Your task to perform on an android device: turn on location history Image 0: 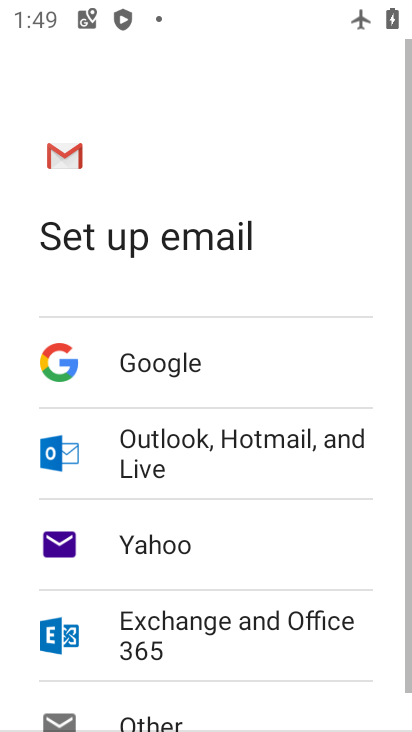
Step 0: press home button
Your task to perform on an android device: turn on location history Image 1: 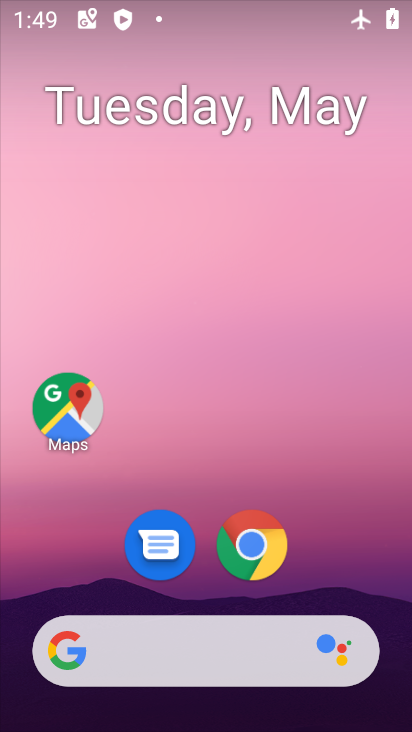
Step 1: click (71, 409)
Your task to perform on an android device: turn on location history Image 2: 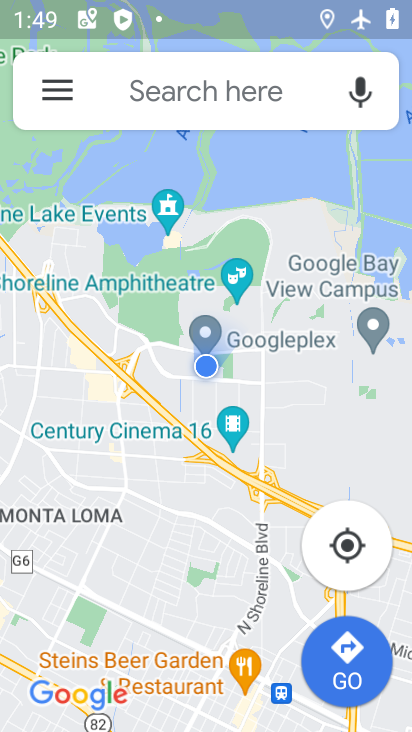
Step 2: click (58, 85)
Your task to perform on an android device: turn on location history Image 3: 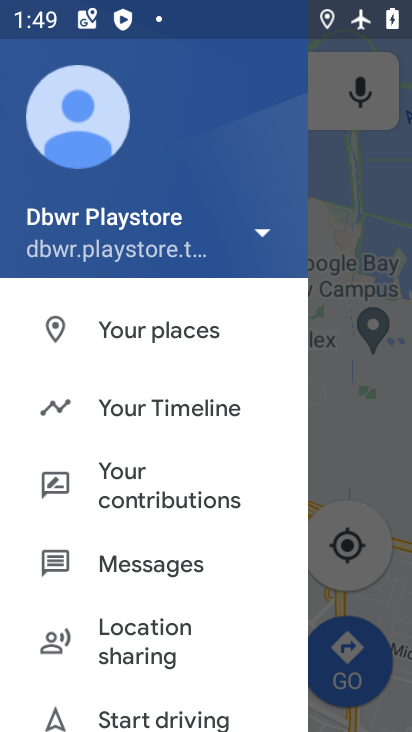
Step 3: drag from (229, 650) to (242, 237)
Your task to perform on an android device: turn on location history Image 4: 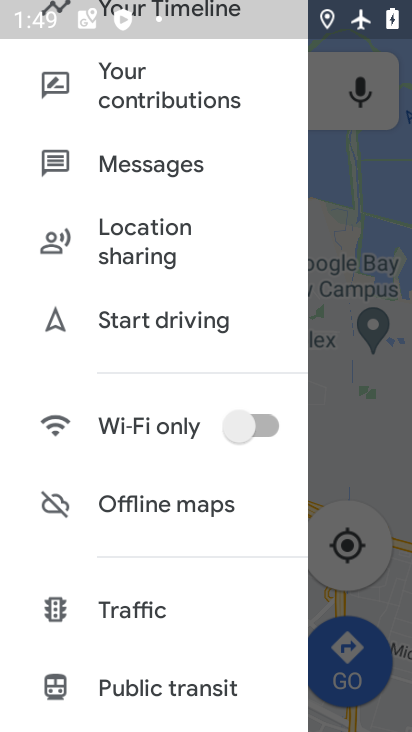
Step 4: drag from (211, 664) to (177, 213)
Your task to perform on an android device: turn on location history Image 5: 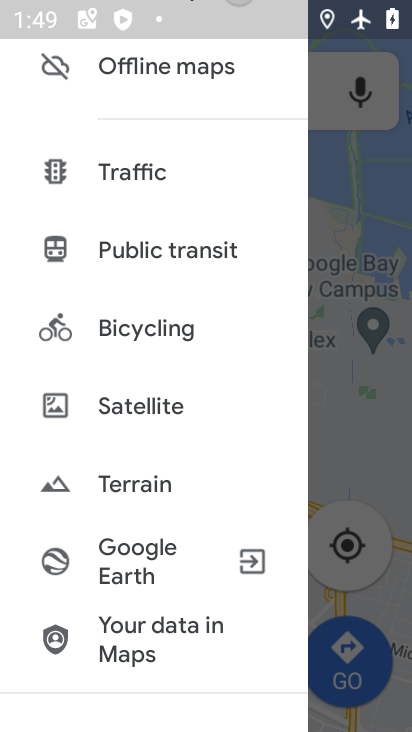
Step 5: drag from (210, 633) to (170, 220)
Your task to perform on an android device: turn on location history Image 6: 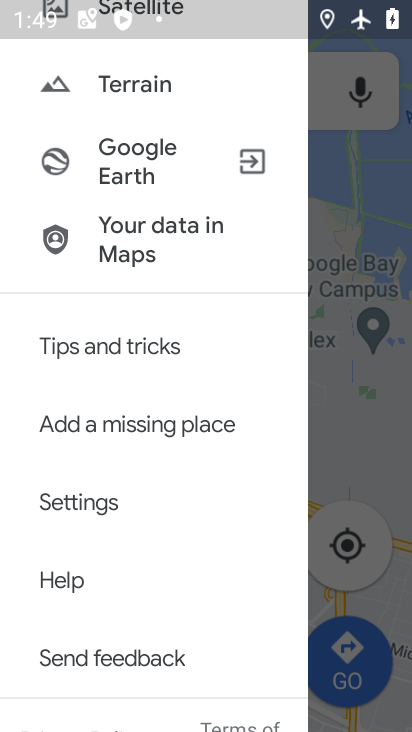
Step 6: click (85, 503)
Your task to perform on an android device: turn on location history Image 7: 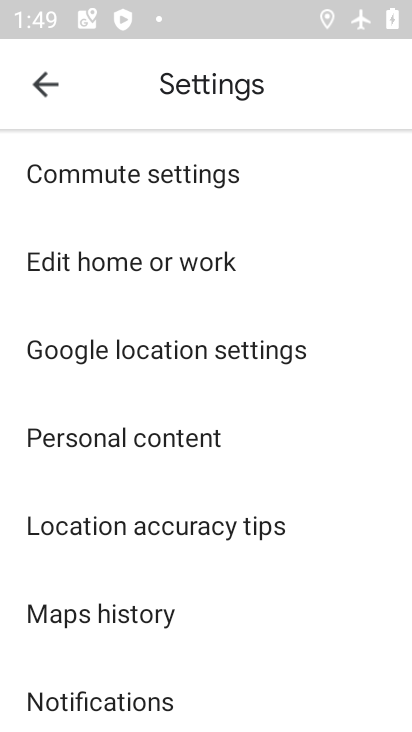
Step 7: click (117, 423)
Your task to perform on an android device: turn on location history Image 8: 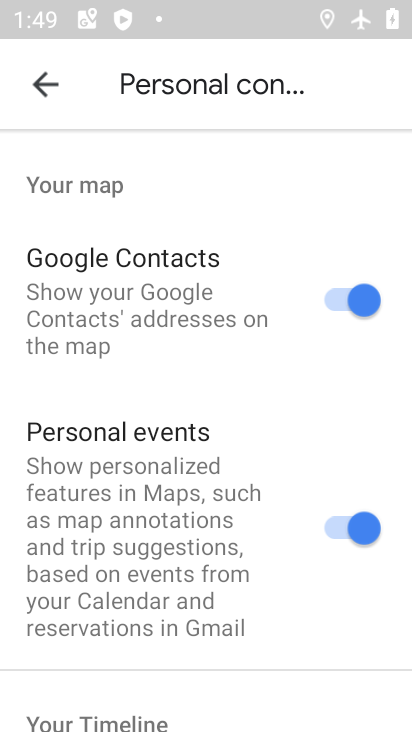
Step 8: drag from (318, 614) to (275, 132)
Your task to perform on an android device: turn on location history Image 9: 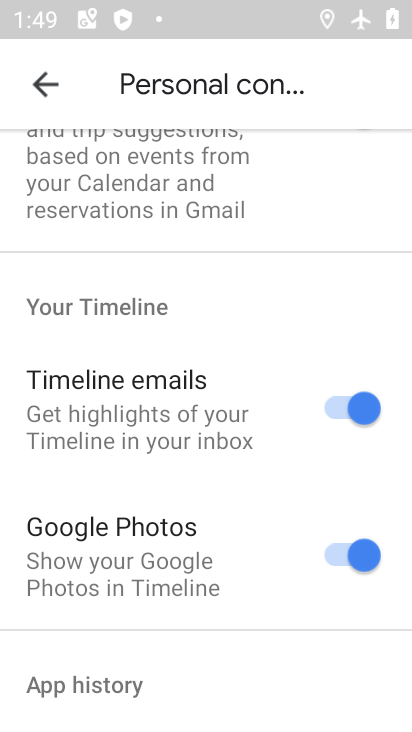
Step 9: drag from (258, 622) to (232, 268)
Your task to perform on an android device: turn on location history Image 10: 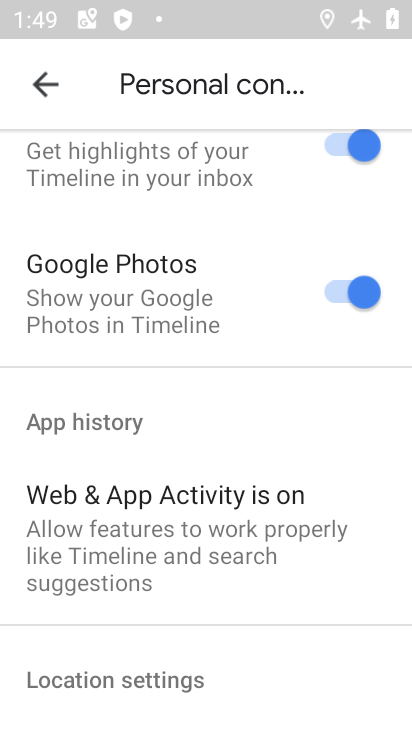
Step 10: drag from (252, 653) to (218, 231)
Your task to perform on an android device: turn on location history Image 11: 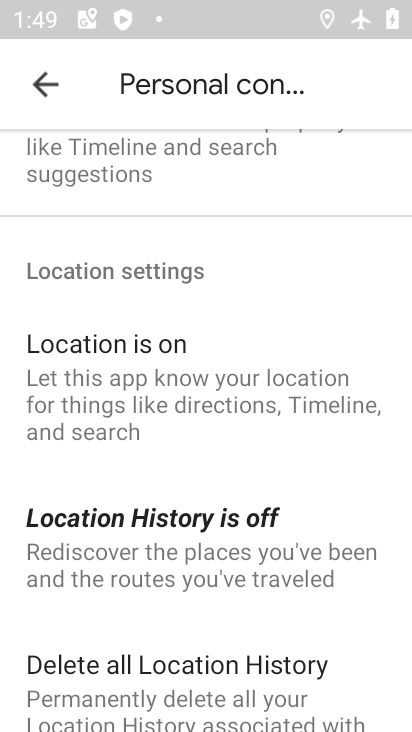
Step 11: click (119, 536)
Your task to perform on an android device: turn on location history Image 12: 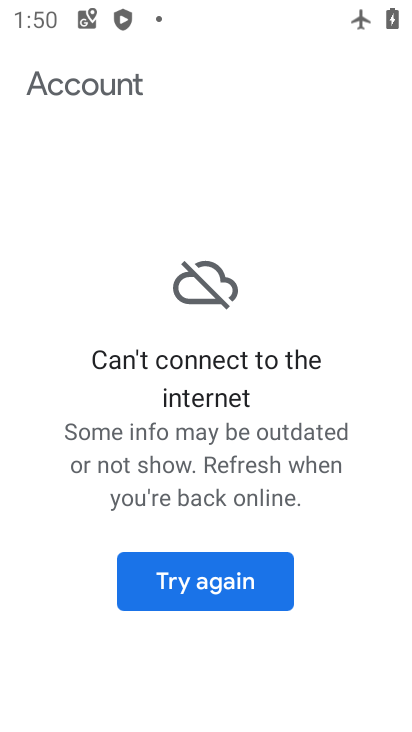
Step 12: click (186, 581)
Your task to perform on an android device: turn on location history Image 13: 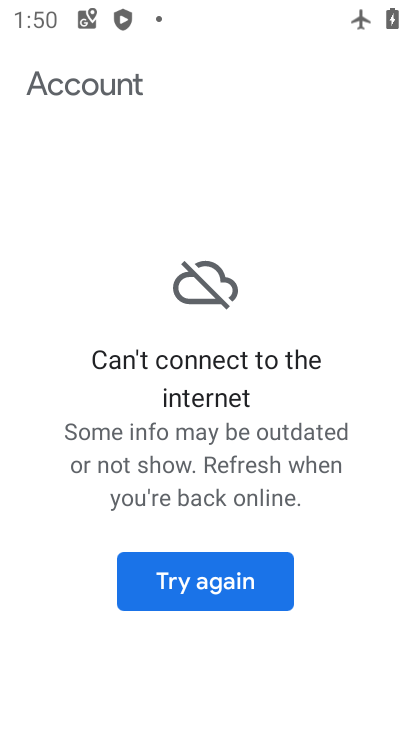
Step 13: task complete